Your task to perform on an android device: find which apps use the phone's location Image 0: 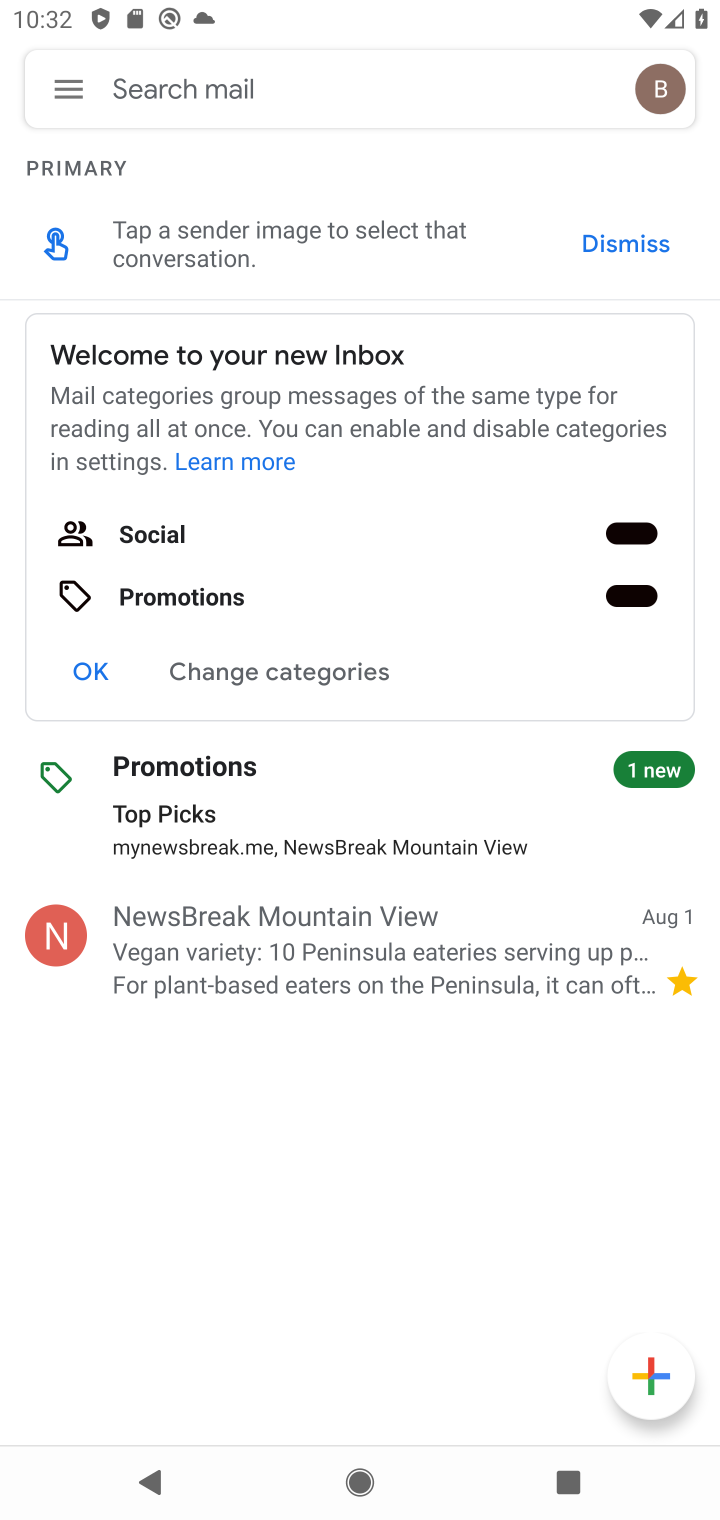
Step 0: press back button
Your task to perform on an android device: find which apps use the phone's location Image 1: 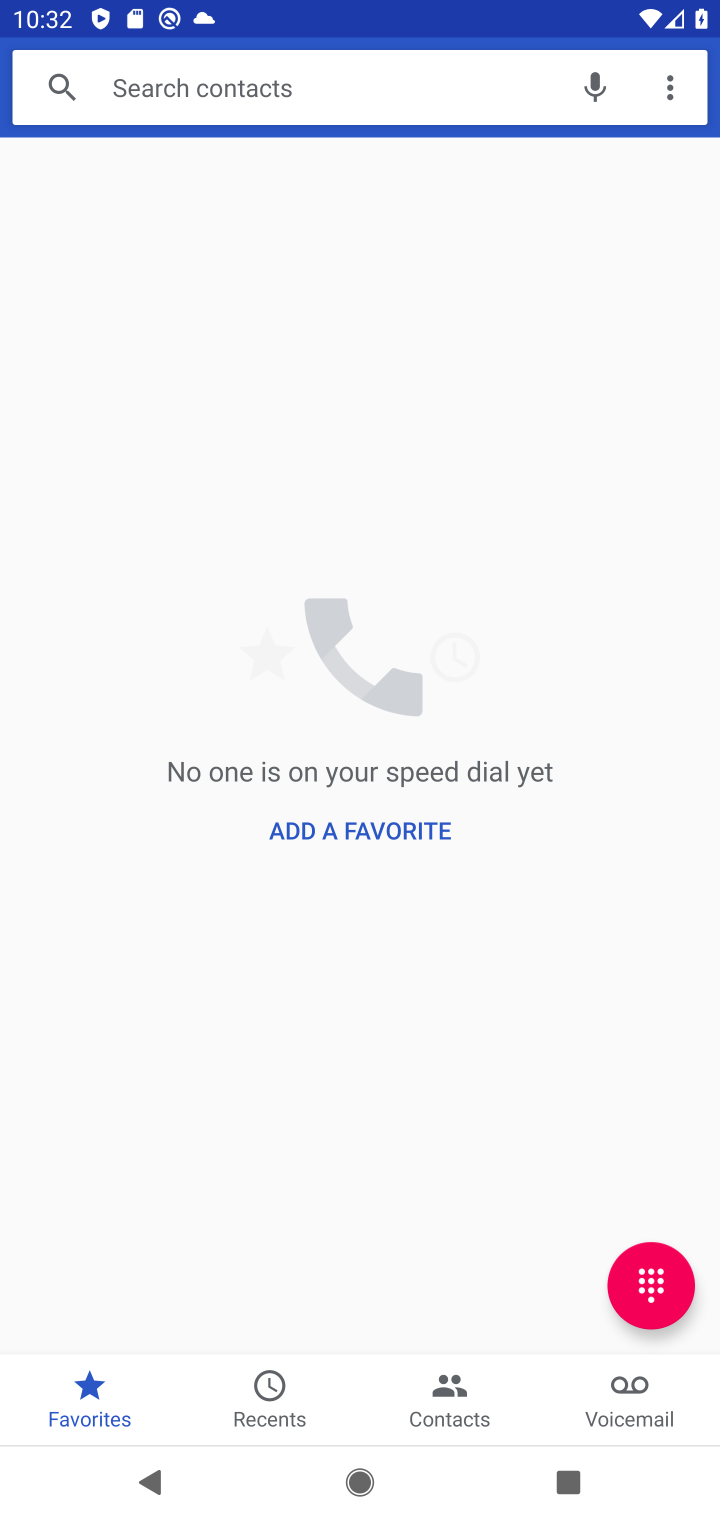
Step 1: press back button
Your task to perform on an android device: find which apps use the phone's location Image 2: 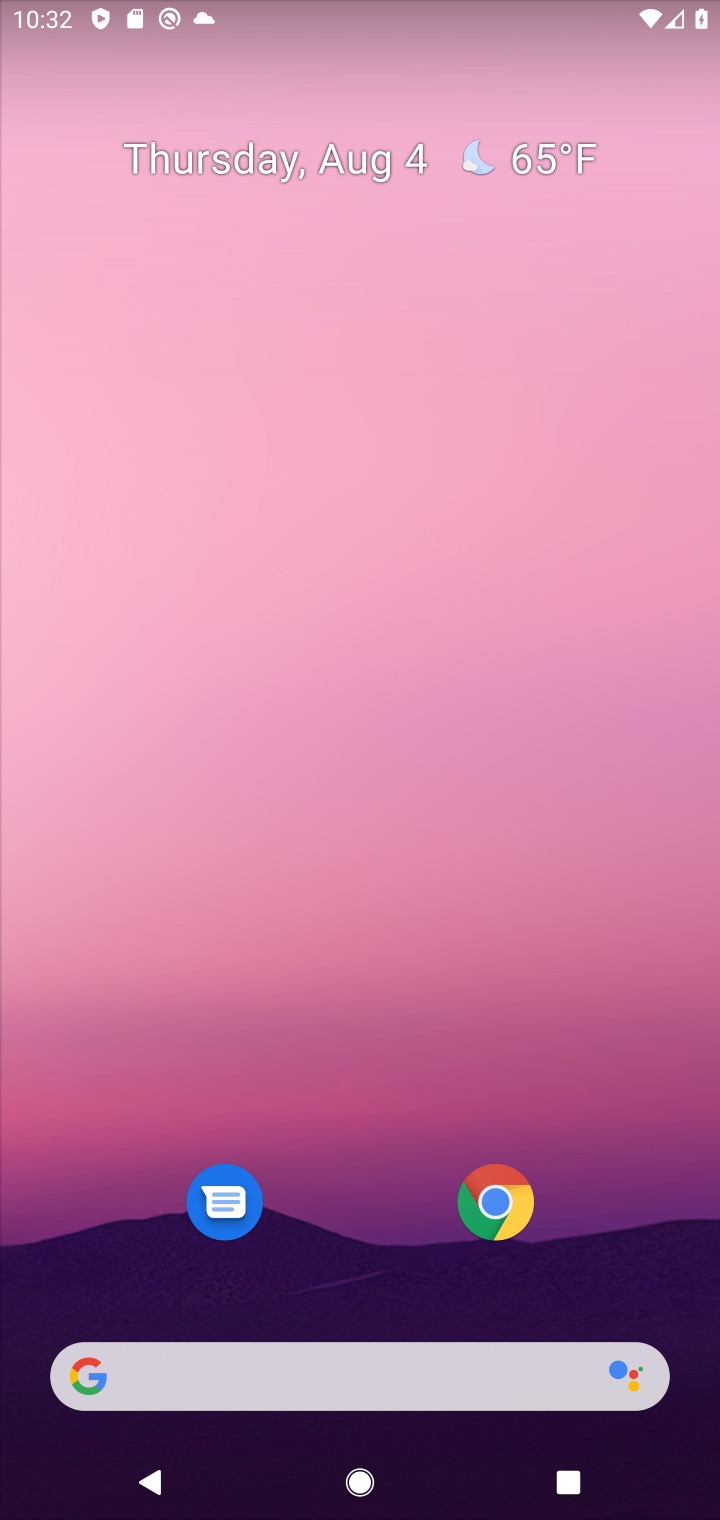
Step 2: press home button
Your task to perform on an android device: find which apps use the phone's location Image 3: 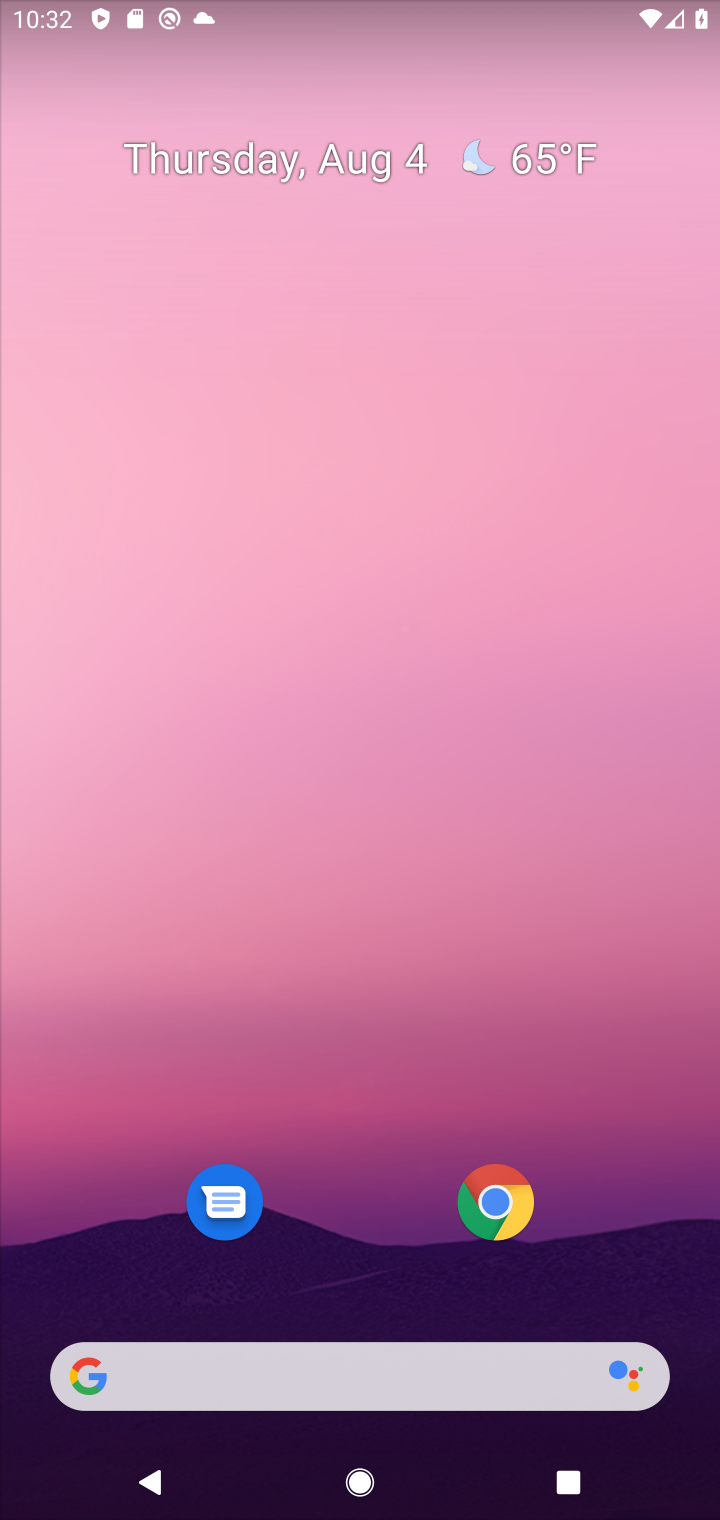
Step 3: drag from (322, 1277) to (402, 196)
Your task to perform on an android device: find which apps use the phone's location Image 4: 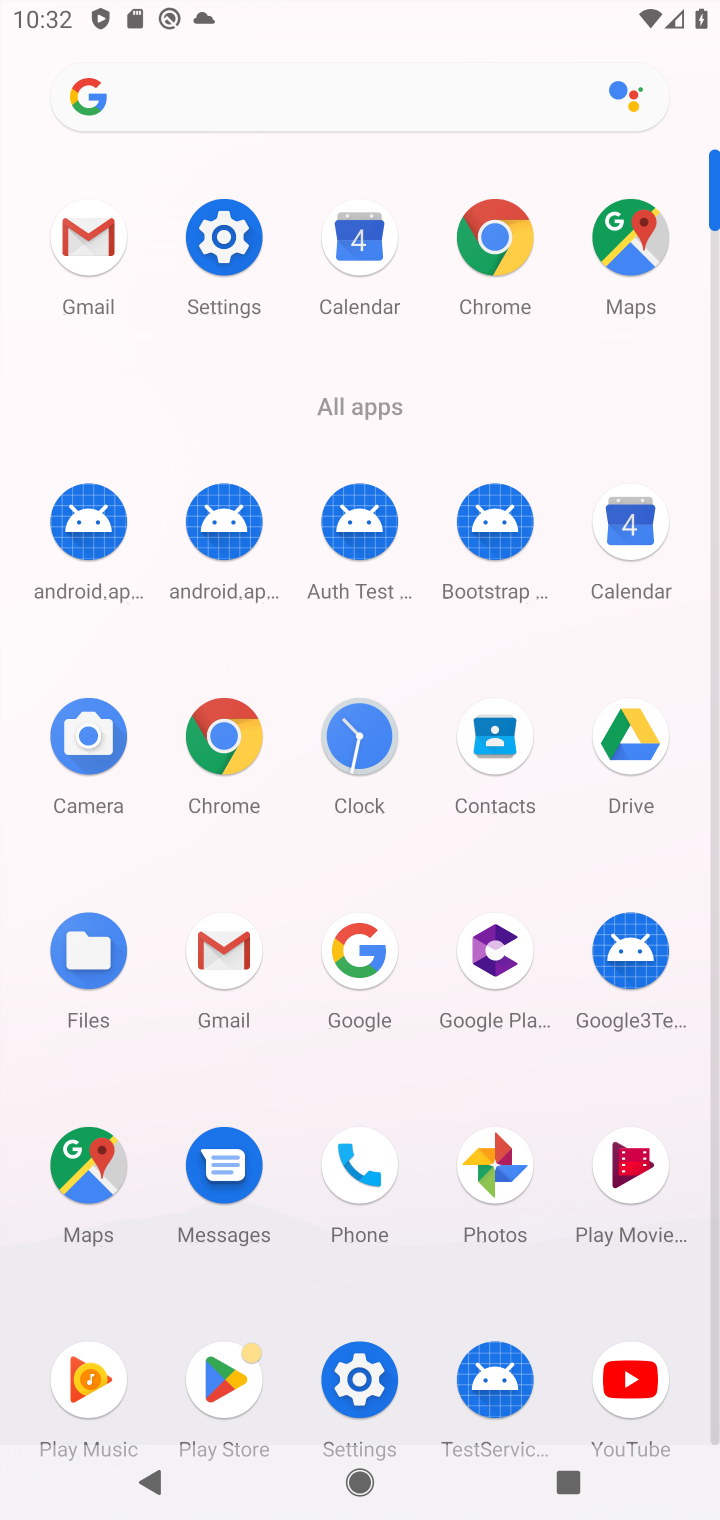
Step 4: click (232, 241)
Your task to perform on an android device: find which apps use the phone's location Image 5: 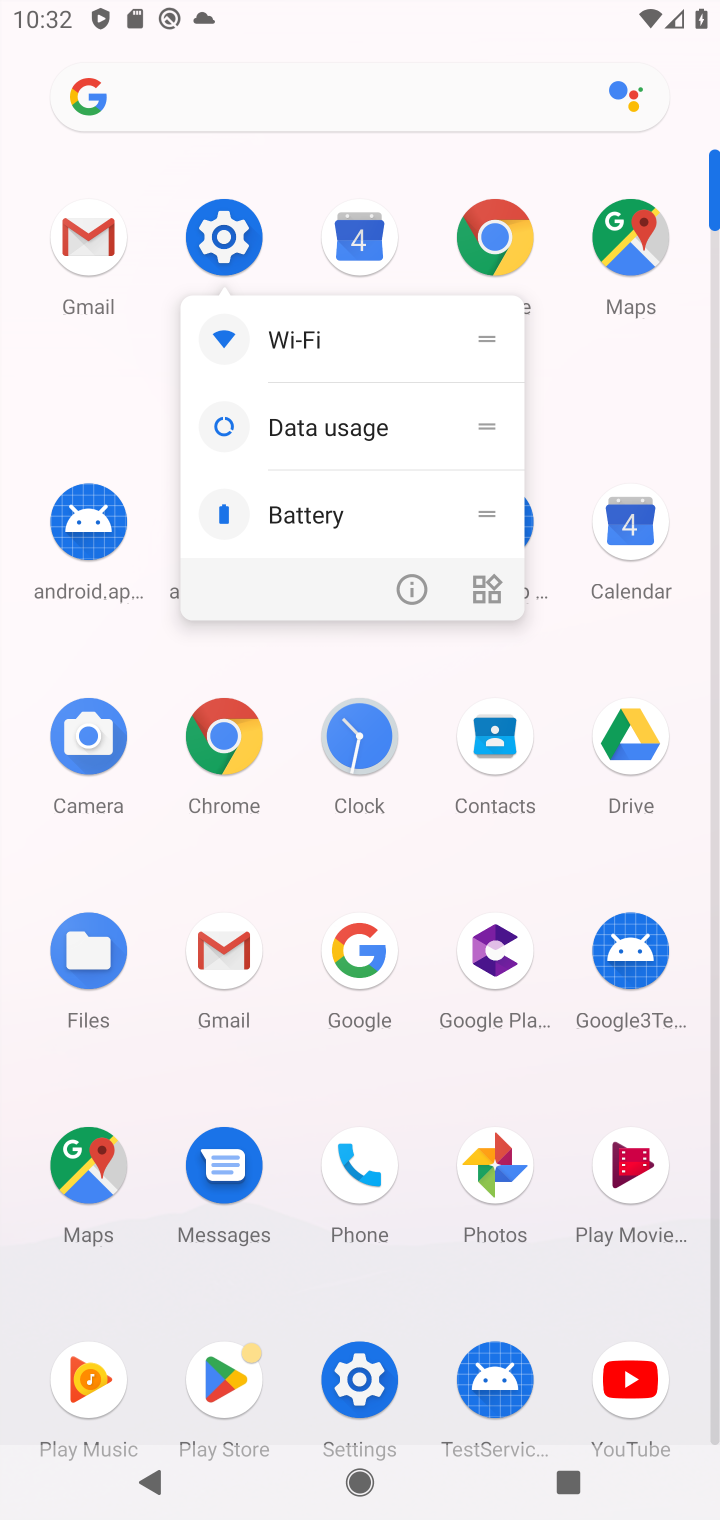
Step 5: click (215, 210)
Your task to perform on an android device: find which apps use the phone's location Image 6: 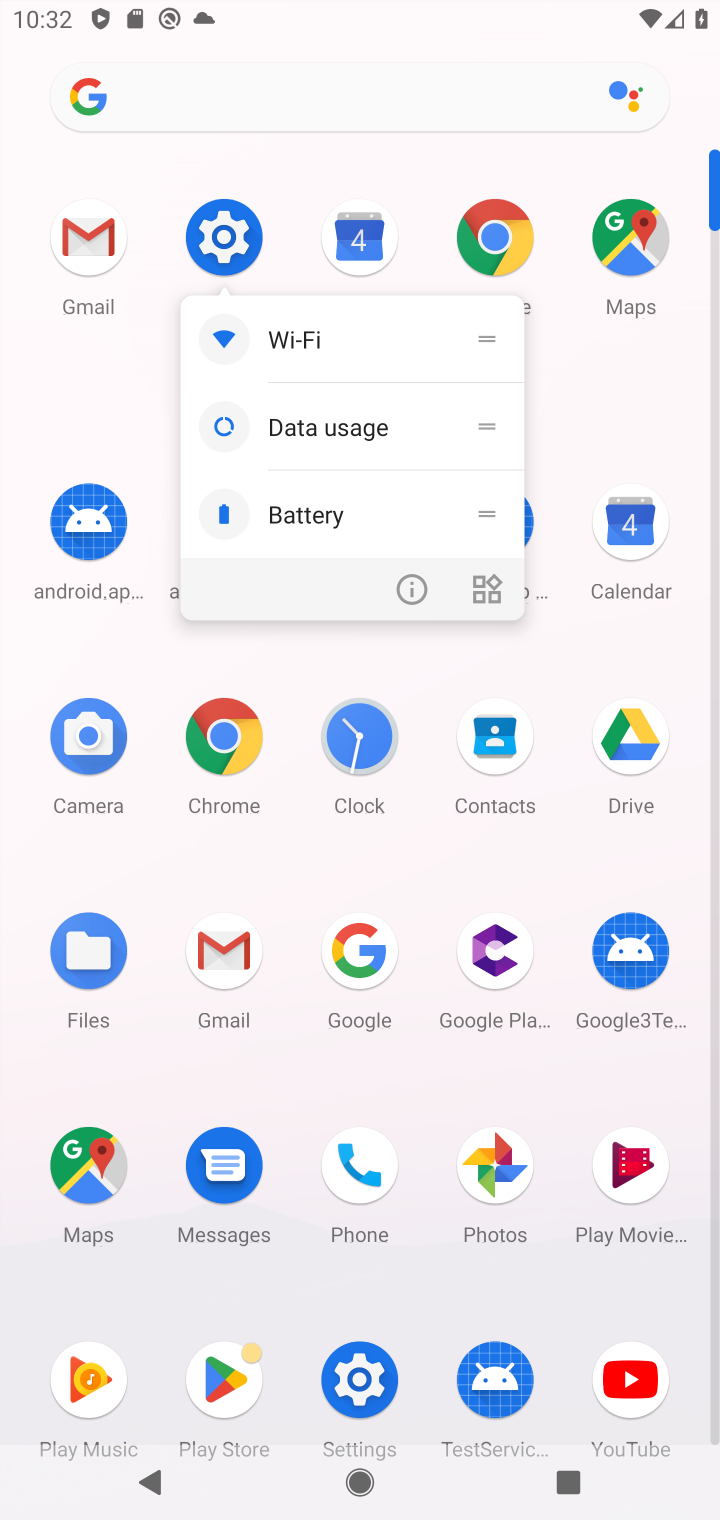
Step 6: click (229, 232)
Your task to perform on an android device: find which apps use the phone's location Image 7: 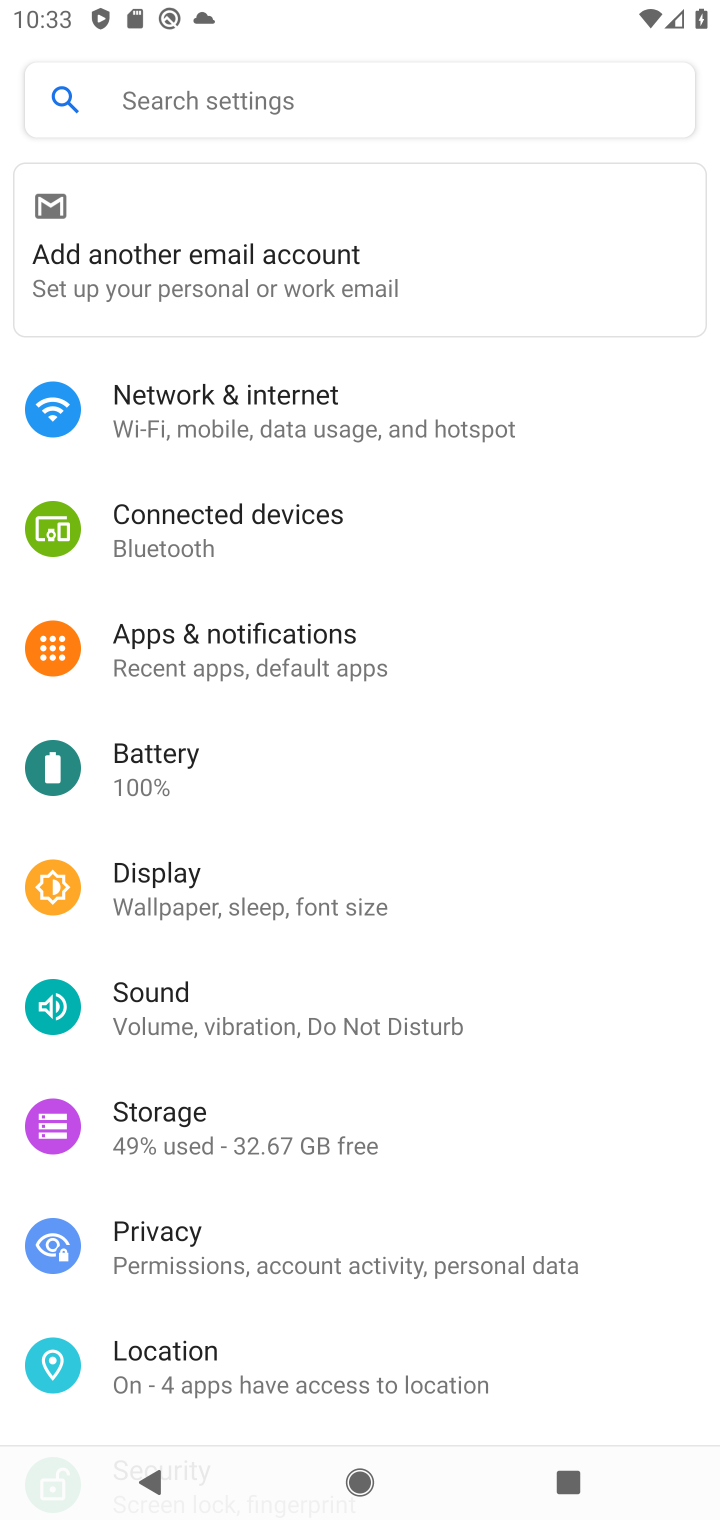
Step 7: click (220, 1357)
Your task to perform on an android device: find which apps use the phone's location Image 8: 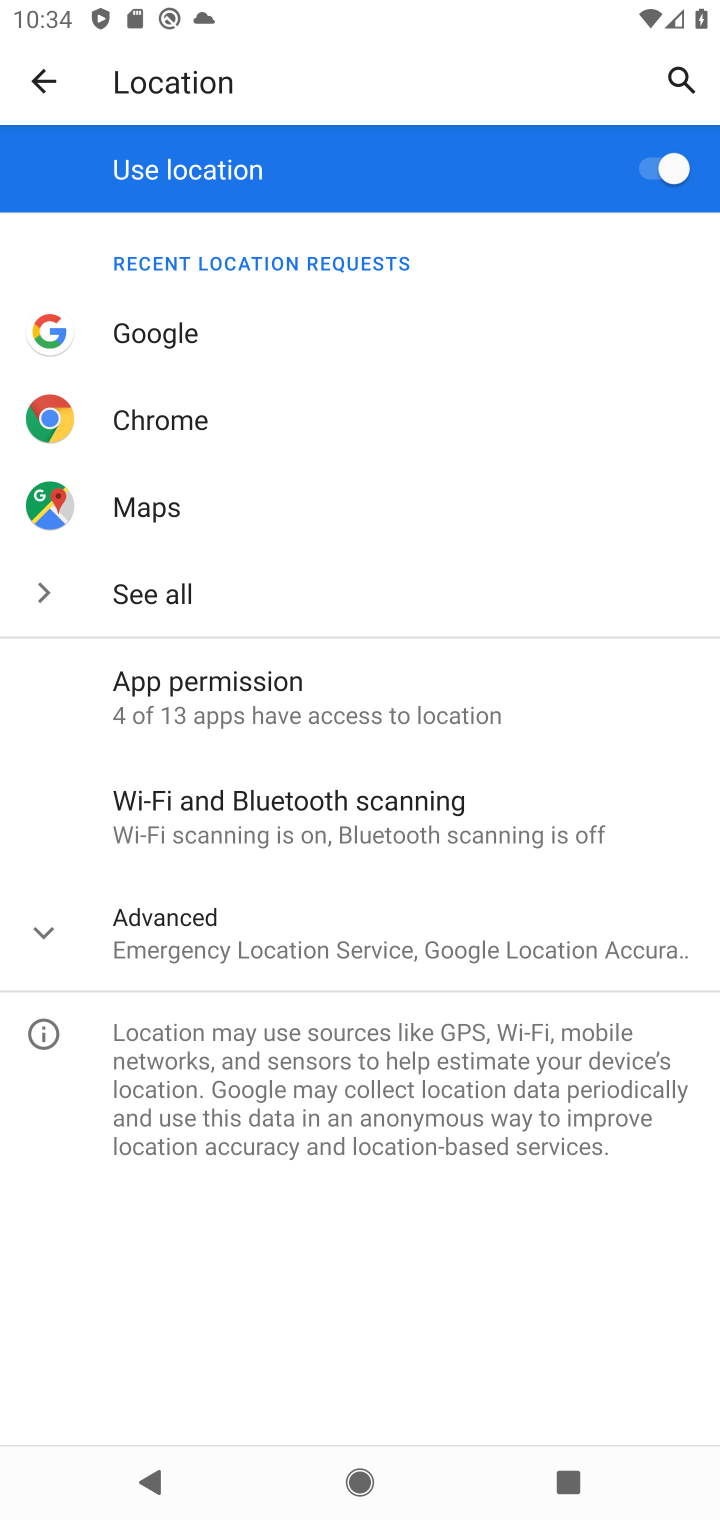
Step 8: click (303, 714)
Your task to perform on an android device: find which apps use the phone's location Image 9: 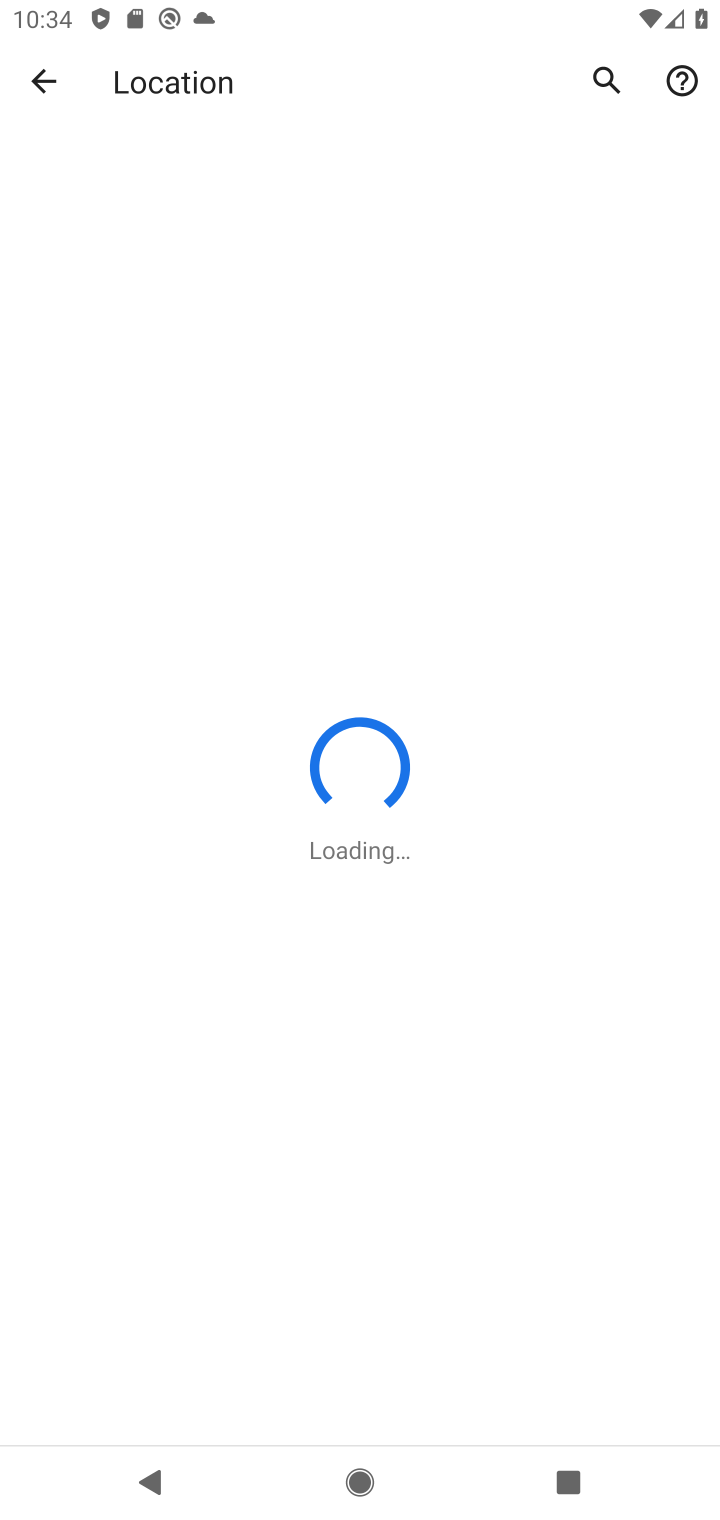
Step 9: task complete